Your task to perform on an android device: Toggle the flashlight Image 0: 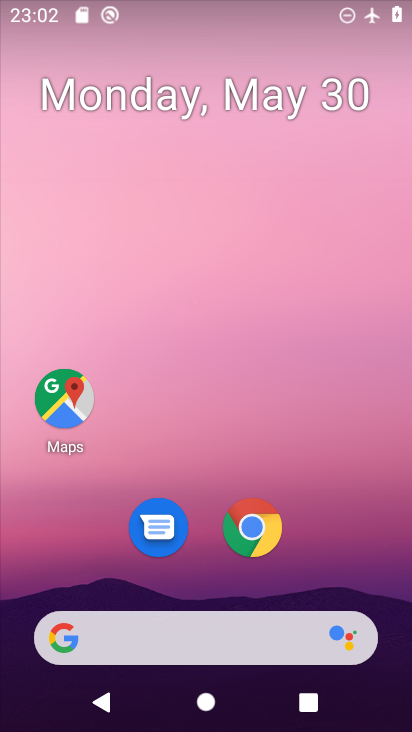
Step 0: drag from (293, 487) to (311, 253)
Your task to perform on an android device: Toggle the flashlight Image 1: 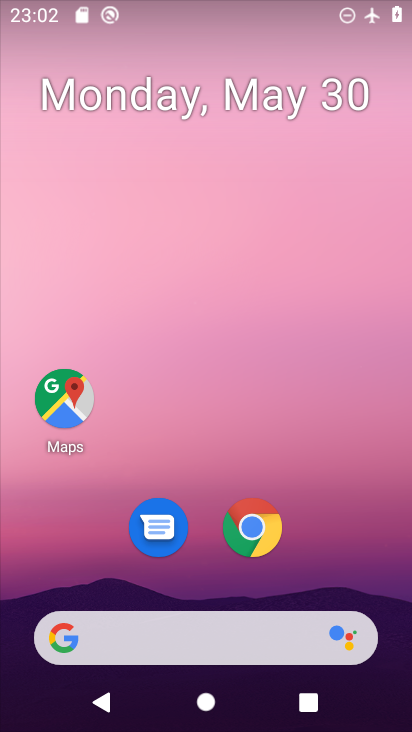
Step 1: drag from (326, 567) to (317, 182)
Your task to perform on an android device: Toggle the flashlight Image 2: 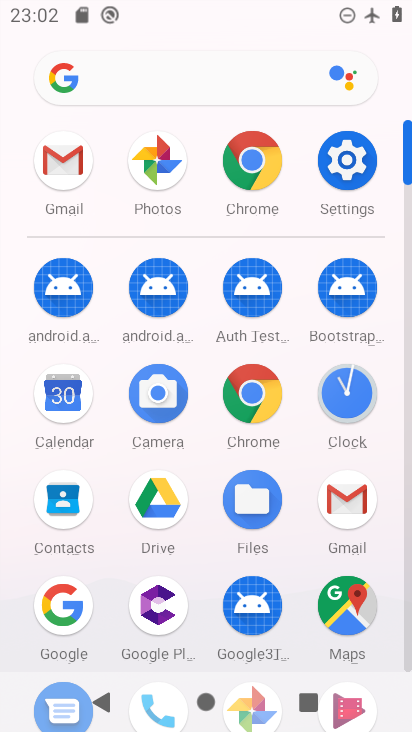
Step 2: click (332, 144)
Your task to perform on an android device: Toggle the flashlight Image 3: 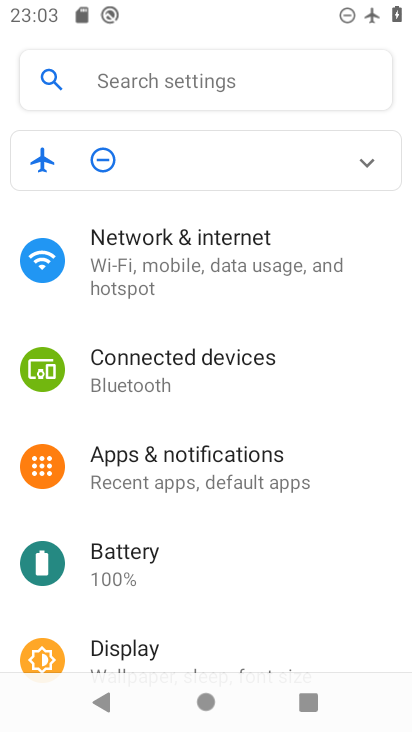
Step 3: task complete